Your task to perform on an android device: change the clock style Image 0: 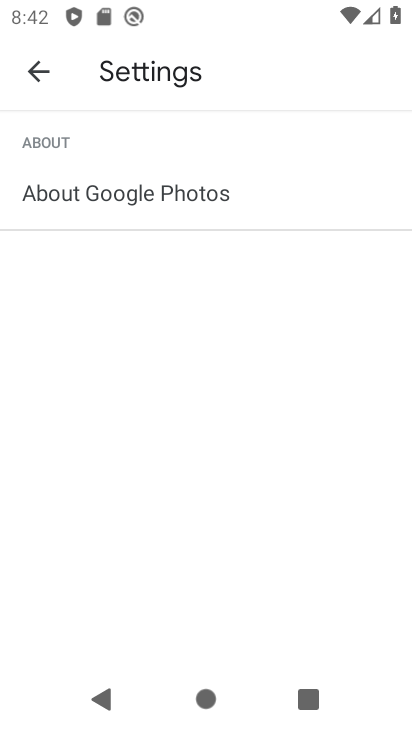
Step 0: press home button
Your task to perform on an android device: change the clock style Image 1: 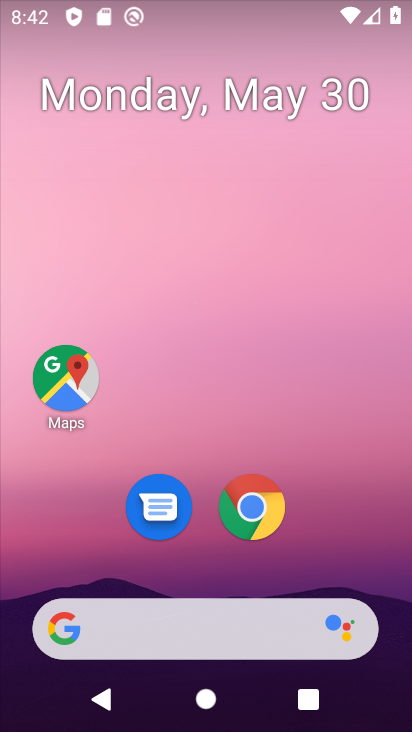
Step 1: drag from (178, 583) to (192, 15)
Your task to perform on an android device: change the clock style Image 2: 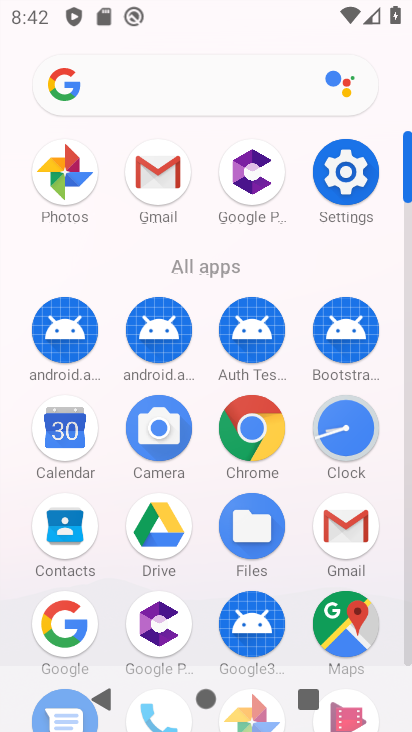
Step 2: click (339, 452)
Your task to perform on an android device: change the clock style Image 3: 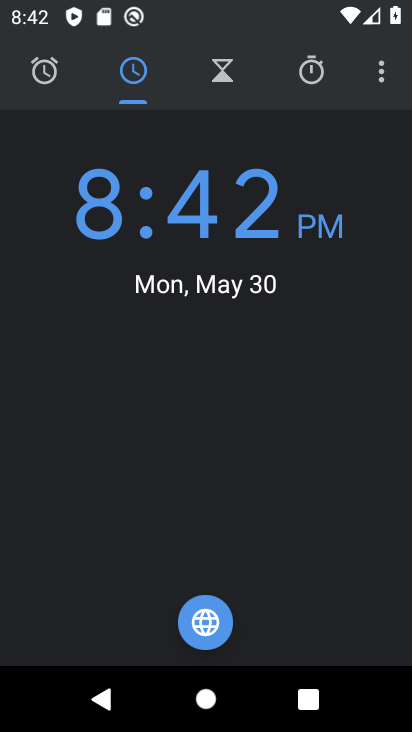
Step 3: click (383, 75)
Your task to perform on an android device: change the clock style Image 4: 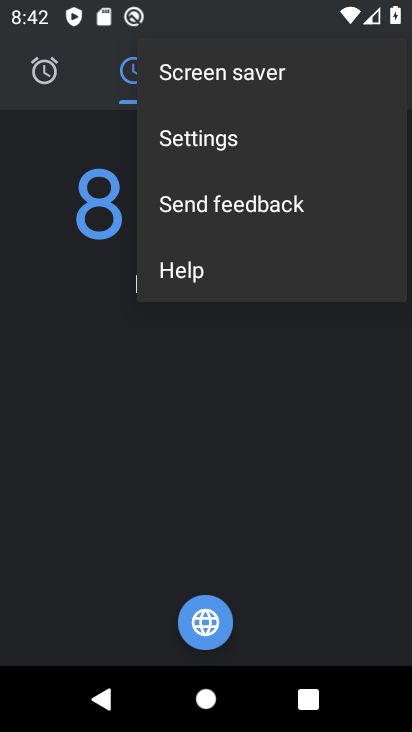
Step 4: click (291, 132)
Your task to perform on an android device: change the clock style Image 5: 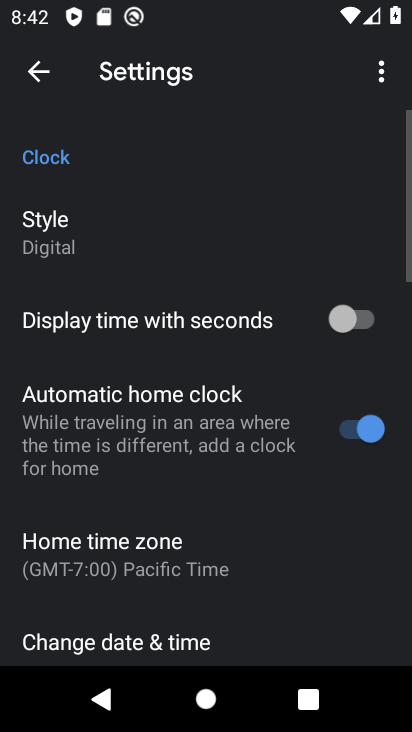
Step 5: click (71, 226)
Your task to perform on an android device: change the clock style Image 6: 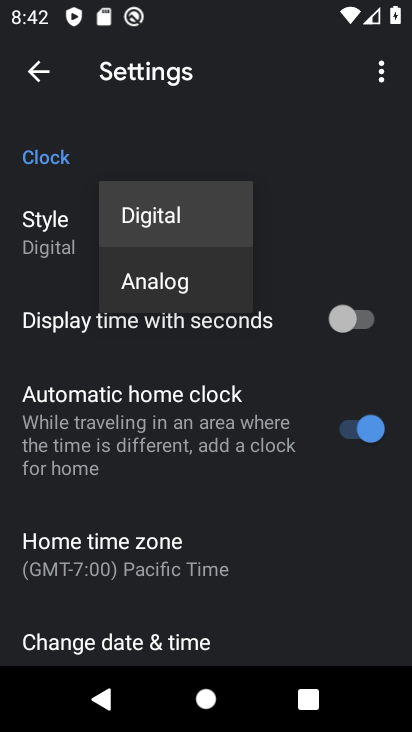
Step 6: click (141, 277)
Your task to perform on an android device: change the clock style Image 7: 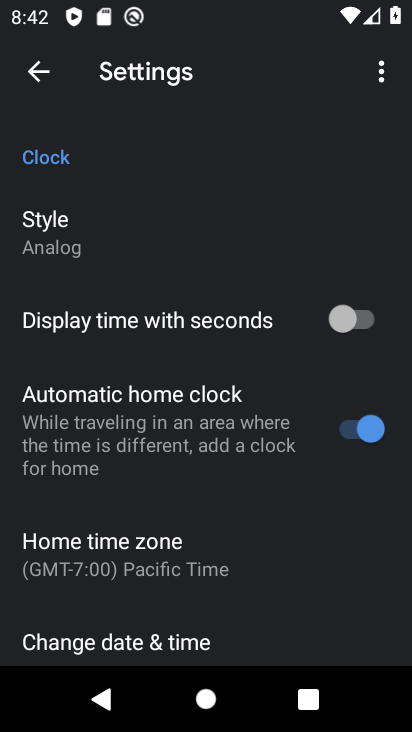
Step 7: task complete